Your task to perform on an android device: Look up the best rated gaming chairs on Target. Image 0: 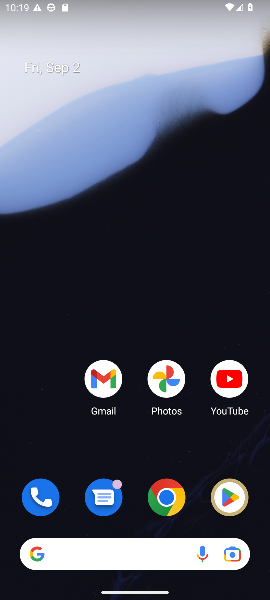
Step 0: click (177, 498)
Your task to perform on an android device: Look up the best rated gaming chairs on Target. Image 1: 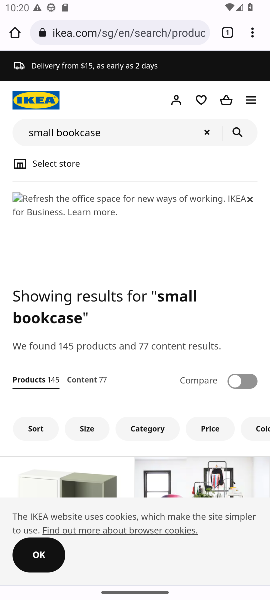
Step 1: click (106, 36)
Your task to perform on an android device: Look up the best rated gaming chairs on Target. Image 2: 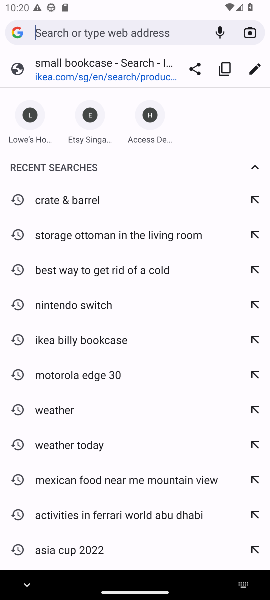
Step 2: type "target"
Your task to perform on an android device: Look up the best rated gaming chairs on Target. Image 3: 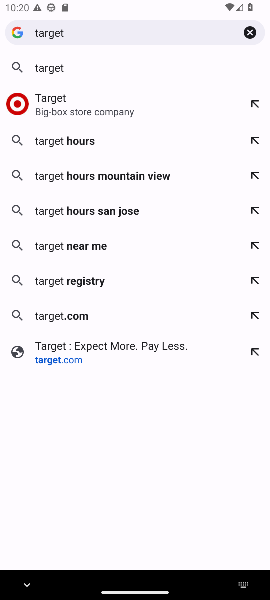
Step 3: click (112, 359)
Your task to perform on an android device: Look up the best rated gaming chairs on Target. Image 4: 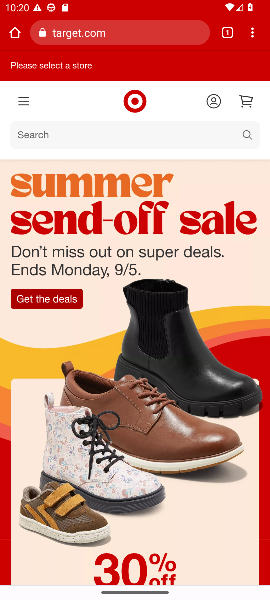
Step 4: click (119, 137)
Your task to perform on an android device: Look up the best rated gaming chairs on Target. Image 5: 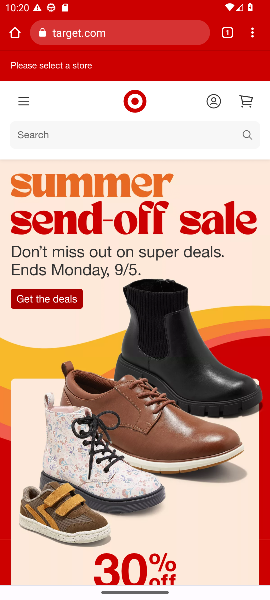
Step 5: type "best rated gaming"
Your task to perform on an android device: Look up the best rated gaming chairs on Target. Image 6: 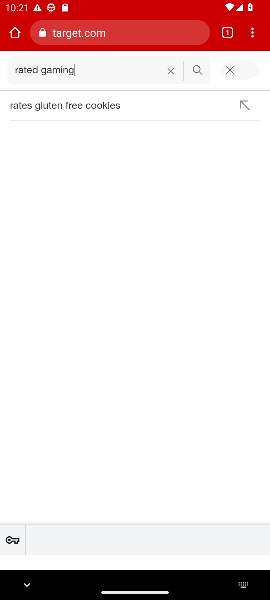
Step 6: press enter
Your task to perform on an android device: Look up the best rated gaming chairs on Target. Image 7: 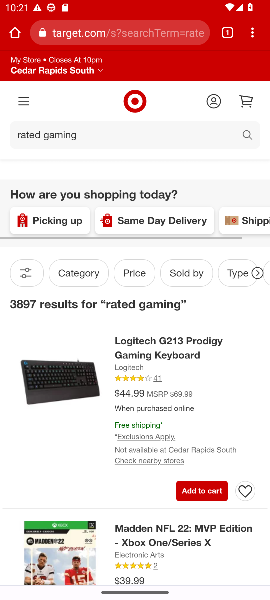
Step 7: task complete